Your task to perform on an android device: Open Youtube and go to the subscriptions tab Image 0: 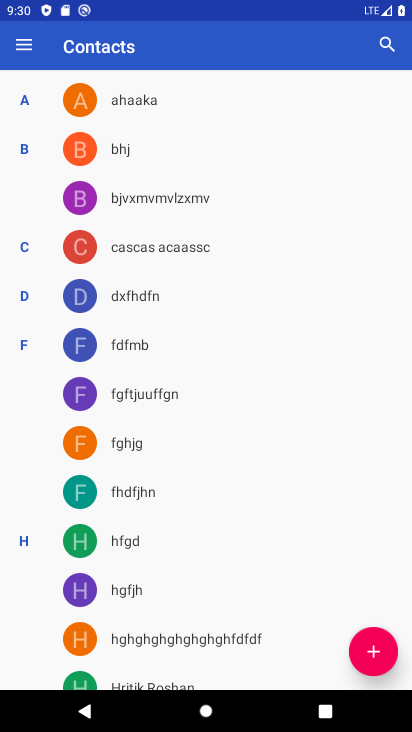
Step 0: press home button
Your task to perform on an android device: Open Youtube and go to the subscriptions tab Image 1: 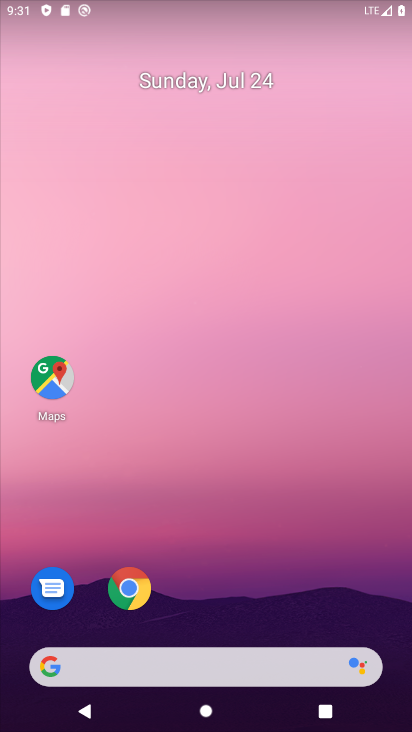
Step 1: drag from (144, 644) to (335, 4)
Your task to perform on an android device: Open Youtube and go to the subscriptions tab Image 2: 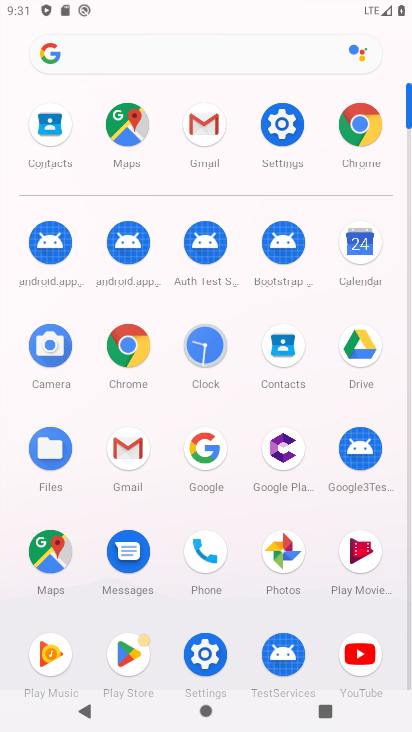
Step 2: click (352, 648)
Your task to perform on an android device: Open Youtube and go to the subscriptions tab Image 3: 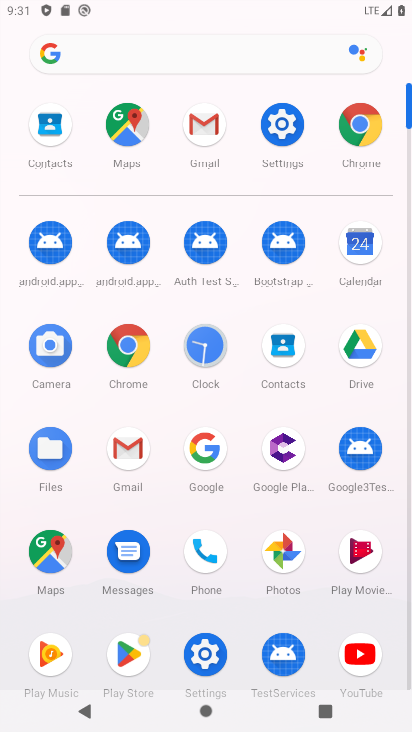
Step 3: click (352, 648)
Your task to perform on an android device: Open Youtube and go to the subscriptions tab Image 4: 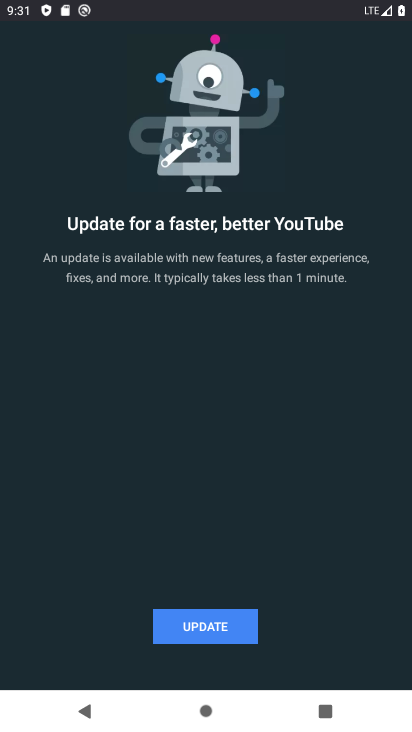
Step 4: click (177, 628)
Your task to perform on an android device: Open Youtube and go to the subscriptions tab Image 5: 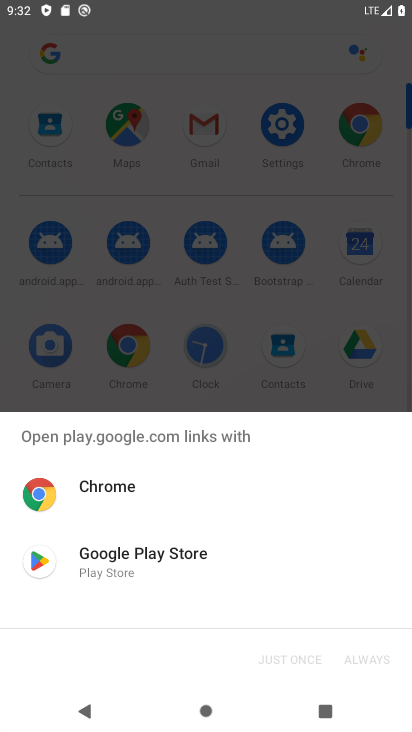
Step 5: press home button
Your task to perform on an android device: Open Youtube and go to the subscriptions tab Image 6: 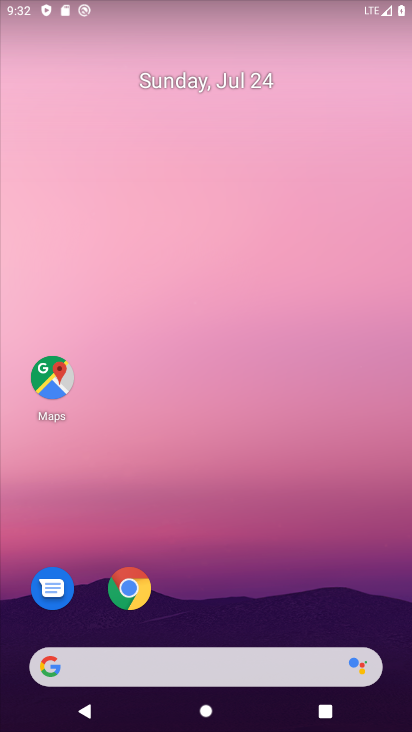
Step 6: drag from (204, 461) to (300, 20)
Your task to perform on an android device: Open Youtube and go to the subscriptions tab Image 7: 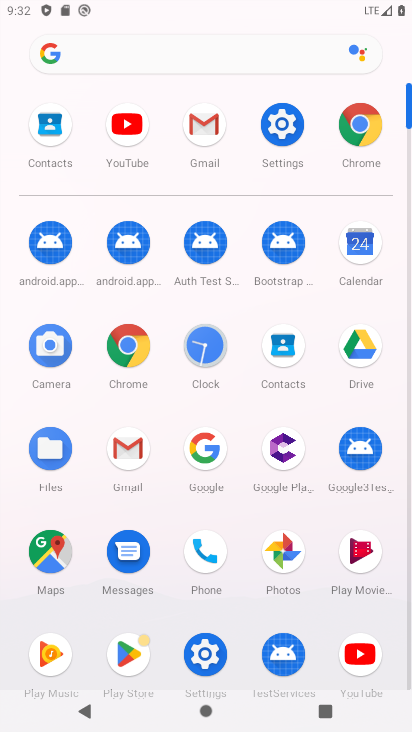
Step 7: click (347, 650)
Your task to perform on an android device: Open Youtube and go to the subscriptions tab Image 8: 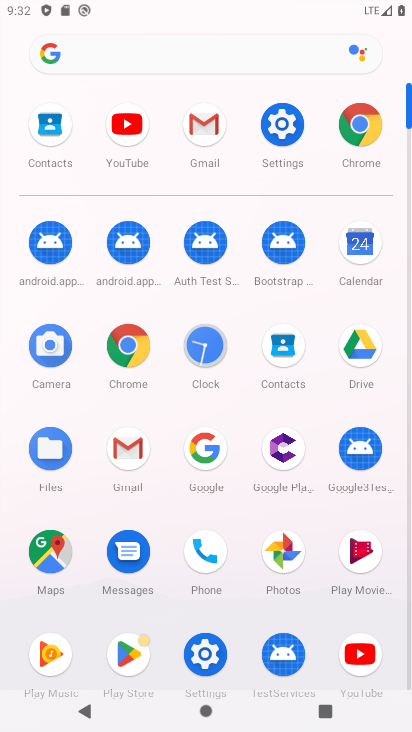
Step 8: click (347, 650)
Your task to perform on an android device: Open Youtube and go to the subscriptions tab Image 9: 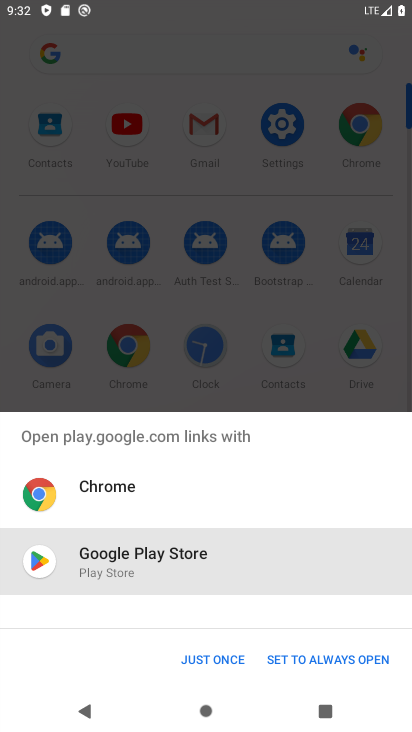
Step 9: click (99, 560)
Your task to perform on an android device: Open Youtube and go to the subscriptions tab Image 10: 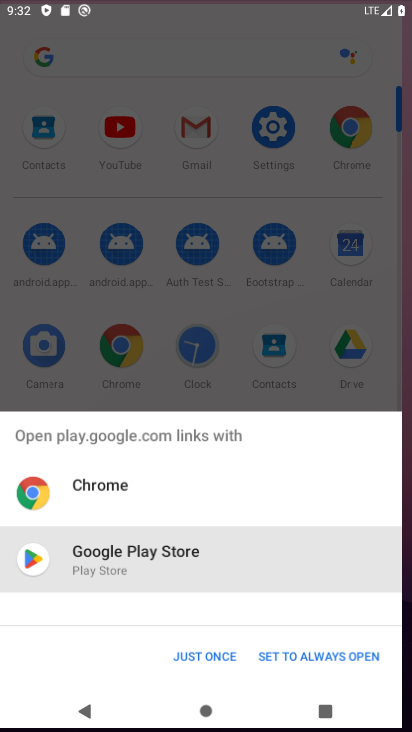
Step 10: click (223, 658)
Your task to perform on an android device: Open Youtube and go to the subscriptions tab Image 11: 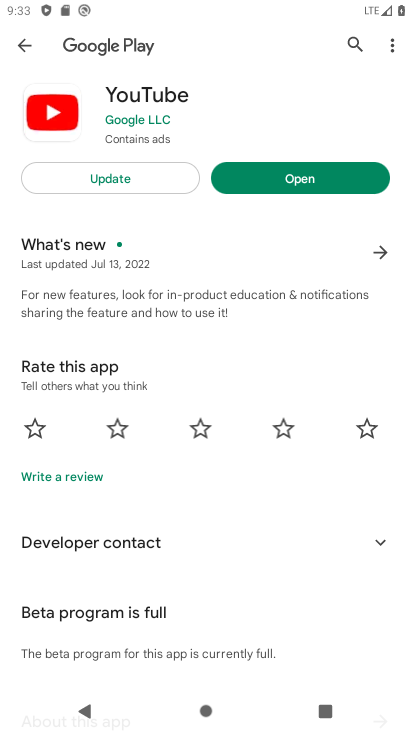
Step 11: click (88, 174)
Your task to perform on an android device: Open Youtube and go to the subscriptions tab Image 12: 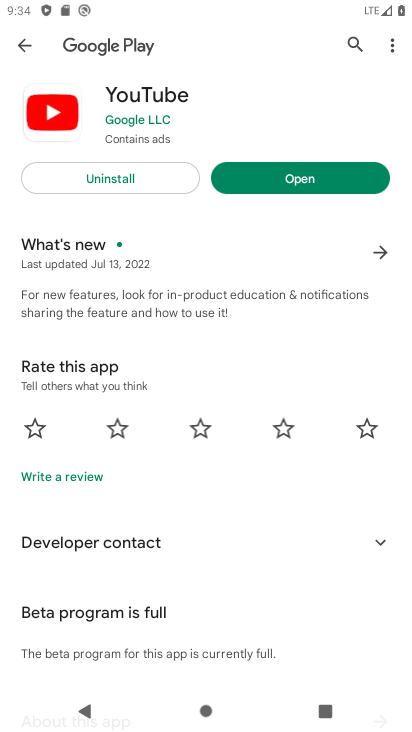
Step 12: click (314, 174)
Your task to perform on an android device: Open Youtube and go to the subscriptions tab Image 13: 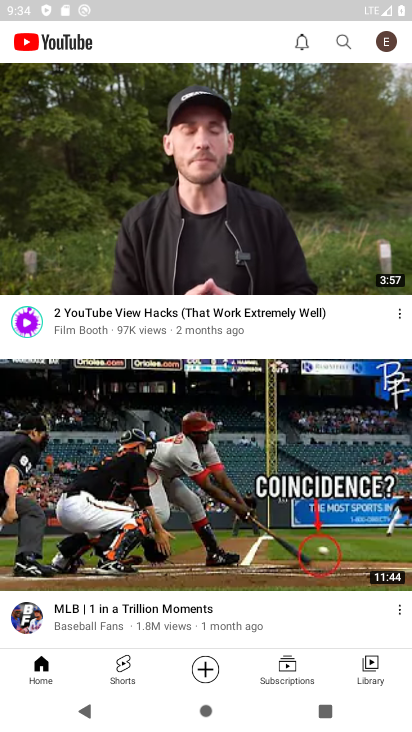
Step 13: click (302, 664)
Your task to perform on an android device: Open Youtube and go to the subscriptions tab Image 14: 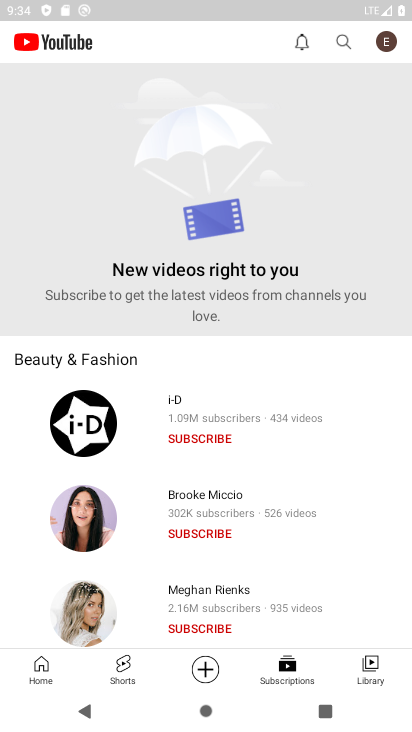
Step 14: task complete